Your task to perform on an android device: refresh tabs in the chrome app Image 0: 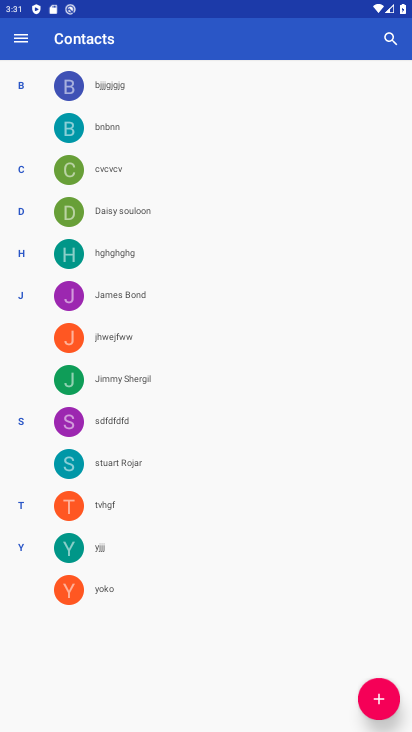
Step 0: press back button
Your task to perform on an android device: refresh tabs in the chrome app Image 1: 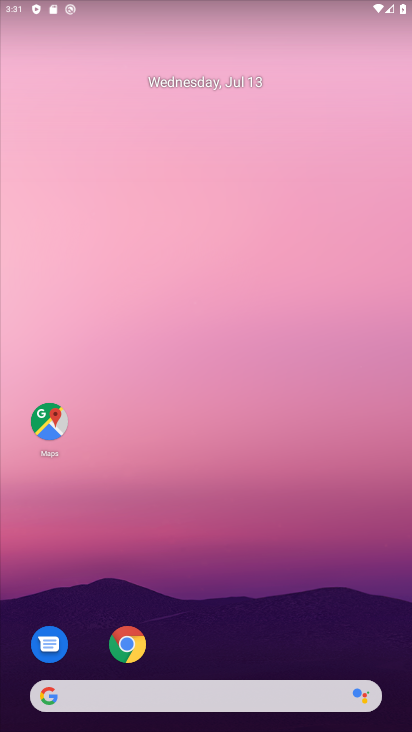
Step 1: click (124, 646)
Your task to perform on an android device: refresh tabs in the chrome app Image 2: 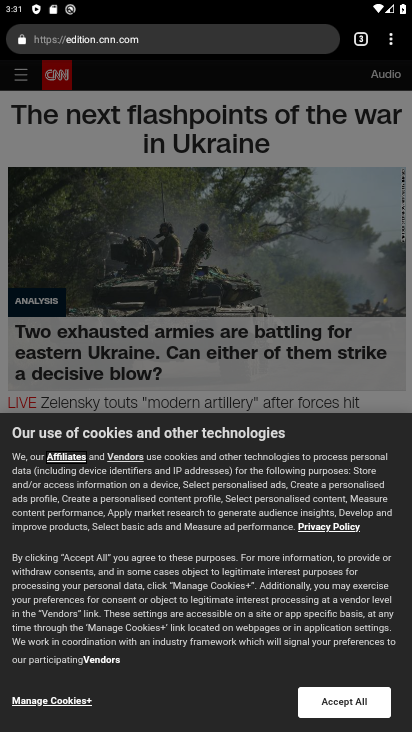
Step 2: click (389, 42)
Your task to perform on an android device: refresh tabs in the chrome app Image 3: 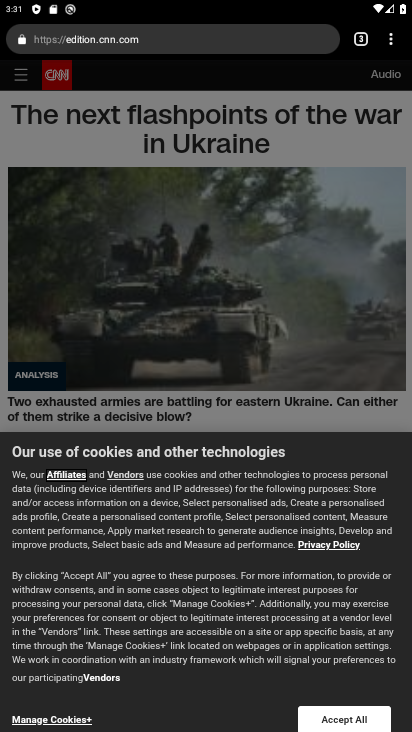
Step 3: task complete